Your task to perform on an android device: Open eBay Image 0: 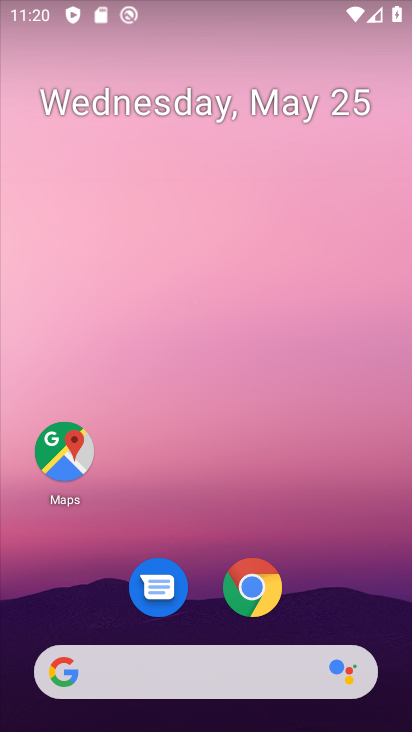
Step 0: drag from (263, 683) to (197, 30)
Your task to perform on an android device: Open eBay Image 1: 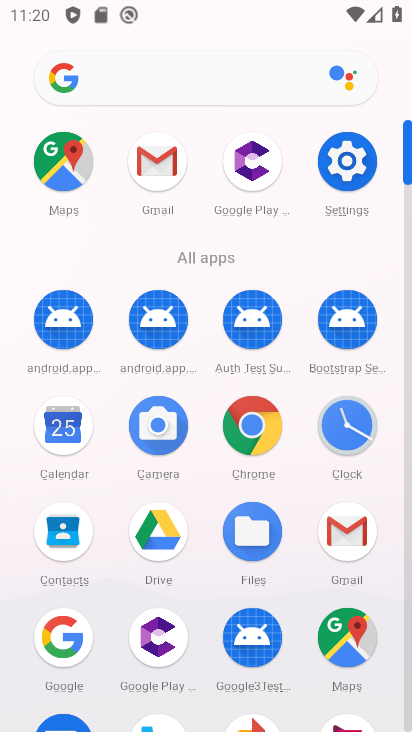
Step 1: click (251, 430)
Your task to perform on an android device: Open eBay Image 2: 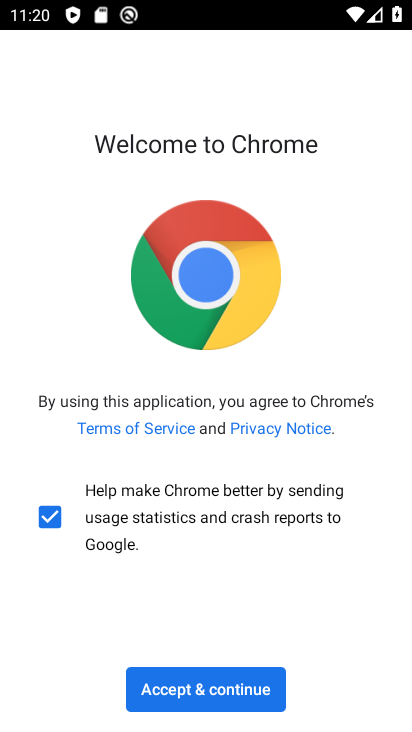
Step 2: click (254, 702)
Your task to perform on an android device: Open eBay Image 3: 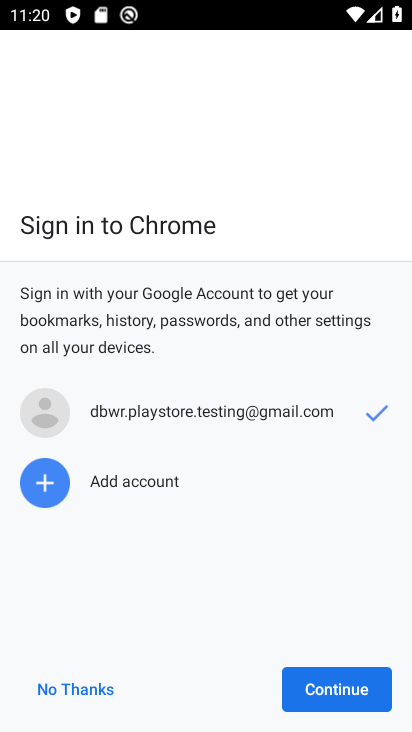
Step 3: click (360, 705)
Your task to perform on an android device: Open eBay Image 4: 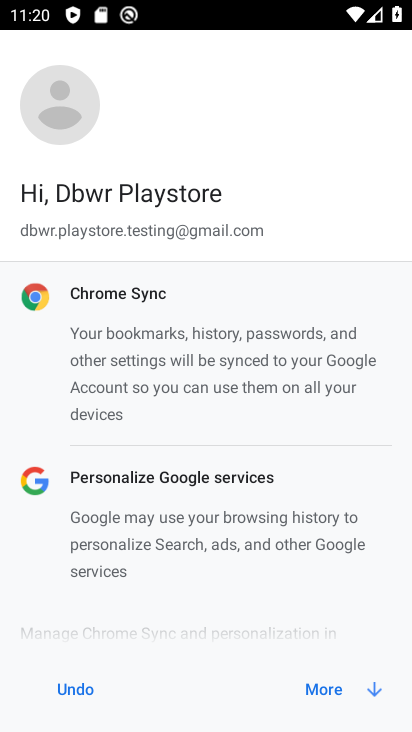
Step 4: click (369, 693)
Your task to perform on an android device: Open eBay Image 5: 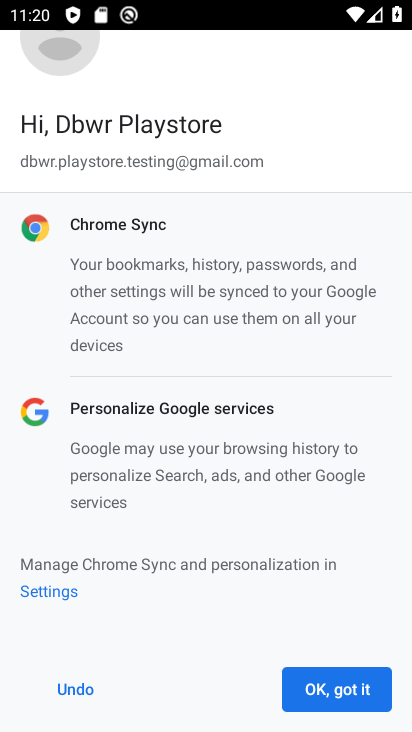
Step 5: click (356, 679)
Your task to perform on an android device: Open eBay Image 6: 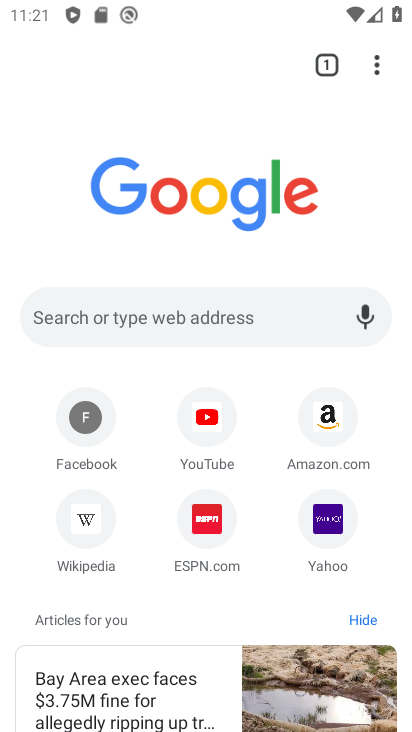
Step 6: click (147, 313)
Your task to perform on an android device: Open eBay Image 7: 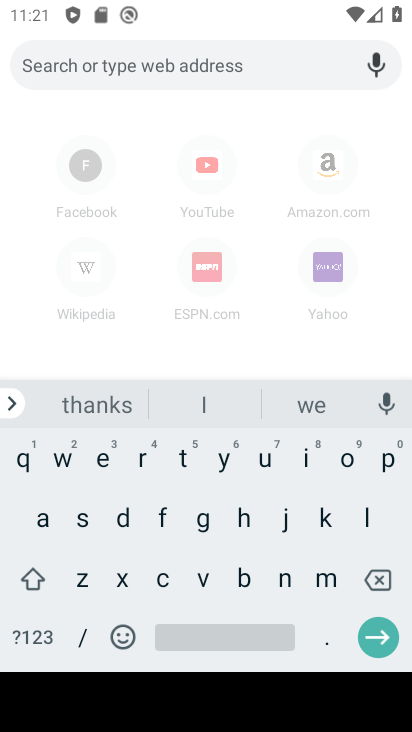
Step 7: click (96, 459)
Your task to perform on an android device: Open eBay Image 8: 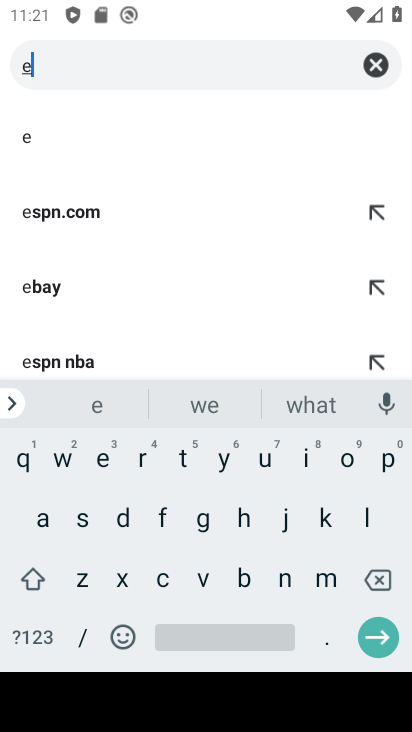
Step 8: click (83, 287)
Your task to perform on an android device: Open eBay Image 9: 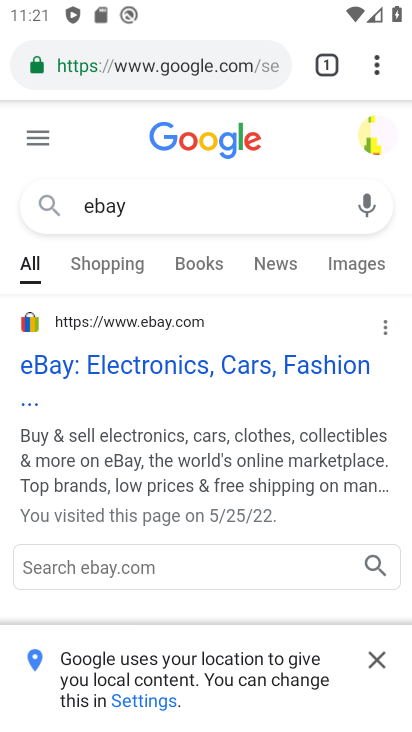
Step 9: click (90, 356)
Your task to perform on an android device: Open eBay Image 10: 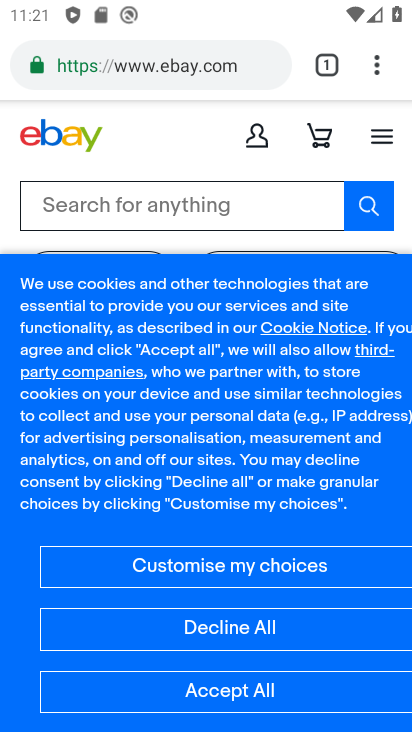
Step 10: click (225, 627)
Your task to perform on an android device: Open eBay Image 11: 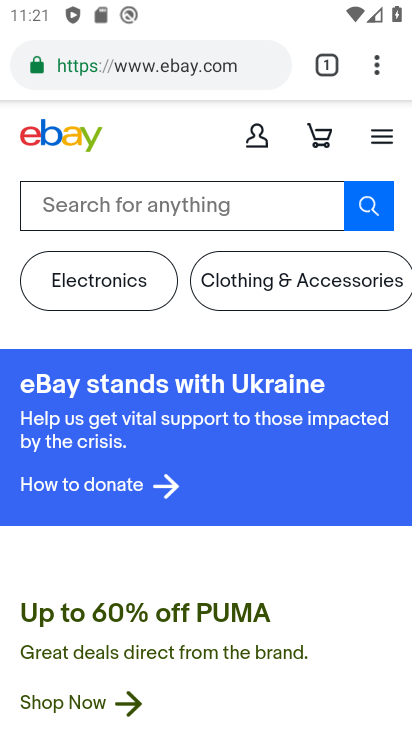
Step 11: task complete